Your task to perform on an android device: turn off data saver in the chrome app Image 0: 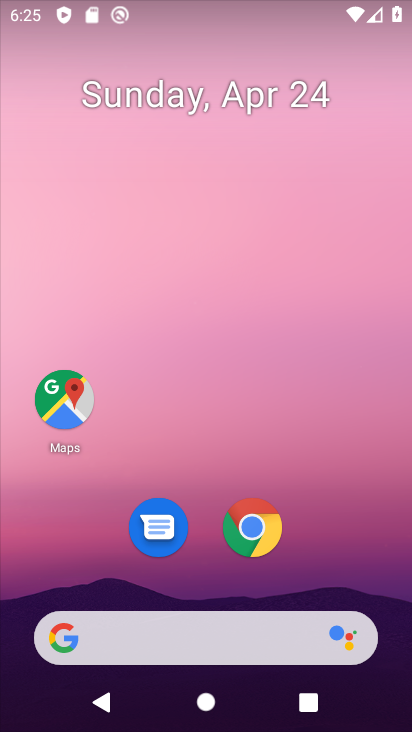
Step 0: click (265, 529)
Your task to perform on an android device: turn off data saver in the chrome app Image 1: 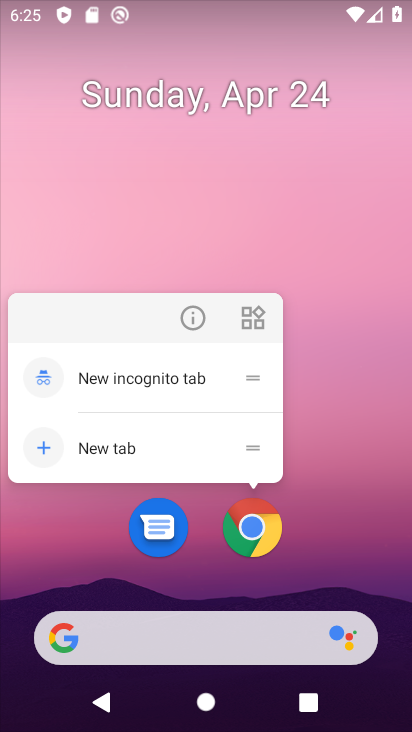
Step 1: click (259, 532)
Your task to perform on an android device: turn off data saver in the chrome app Image 2: 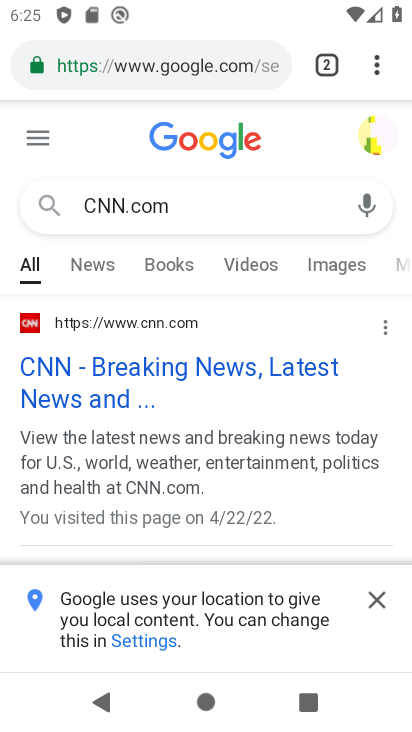
Step 2: click (377, 69)
Your task to perform on an android device: turn off data saver in the chrome app Image 3: 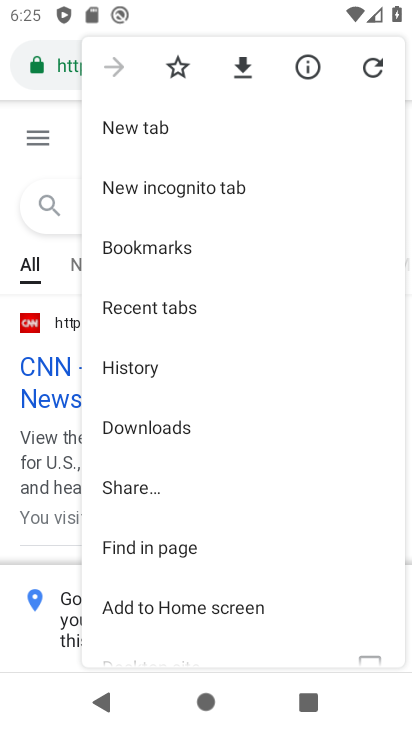
Step 3: drag from (276, 569) to (254, 106)
Your task to perform on an android device: turn off data saver in the chrome app Image 4: 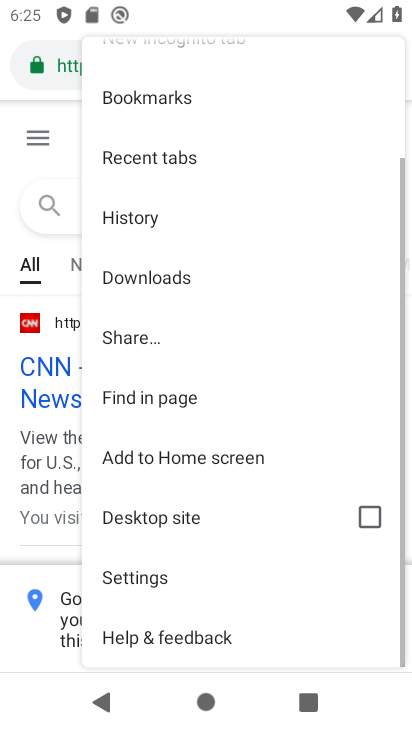
Step 4: click (118, 573)
Your task to perform on an android device: turn off data saver in the chrome app Image 5: 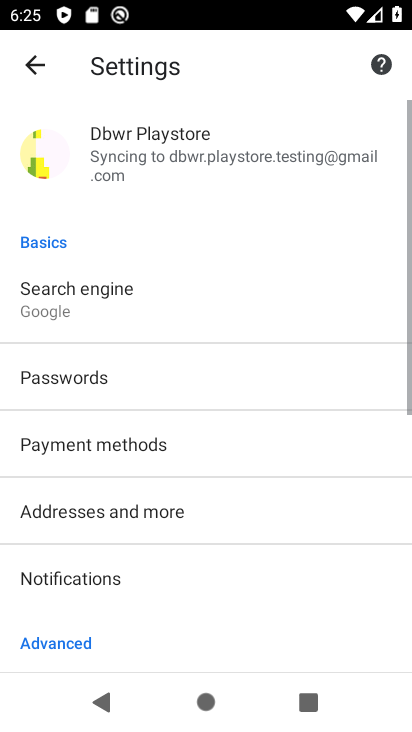
Step 5: drag from (240, 529) to (192, 138)
Your task to perform on an android device: turn off data saver in the chrome app Image 6: 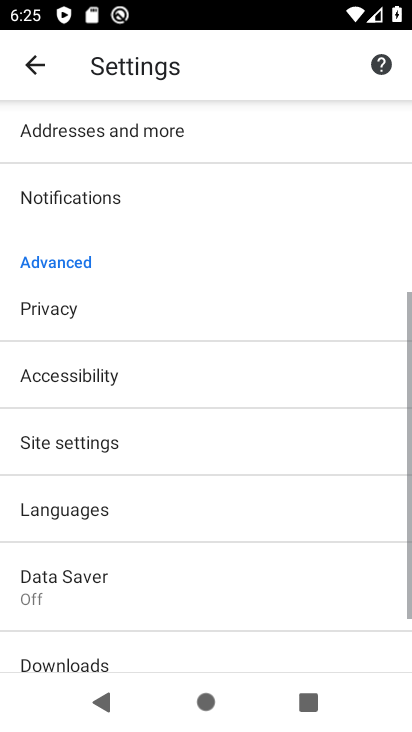
Step 6: drag from (157, 567) to (195, 227)
Your task to perform on an android device: turn off data saver in the chrome app Image 7: 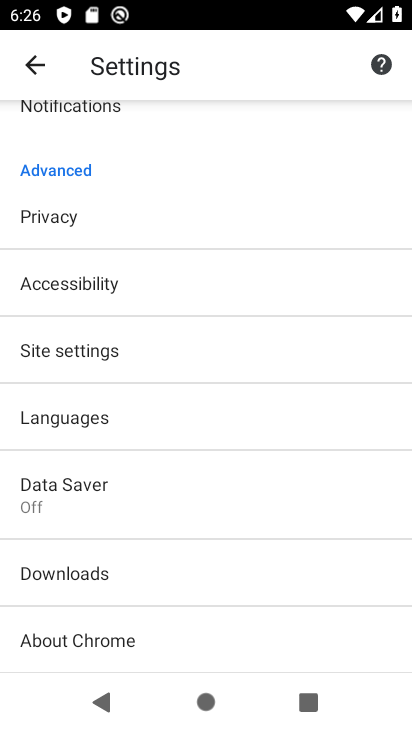
Step 7: click (67, 490)
Your task to perform on an android device: turn off data saver in the chrome app Image 8: 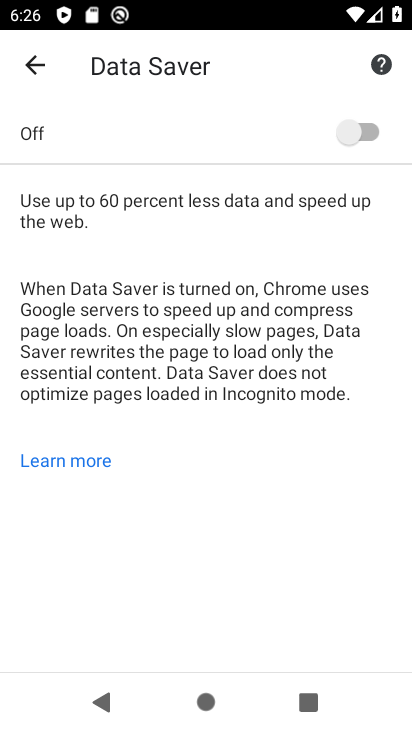
Step 8: task complete